Your task to perform on an android device: delete browsing data in the chrome app Image 0: 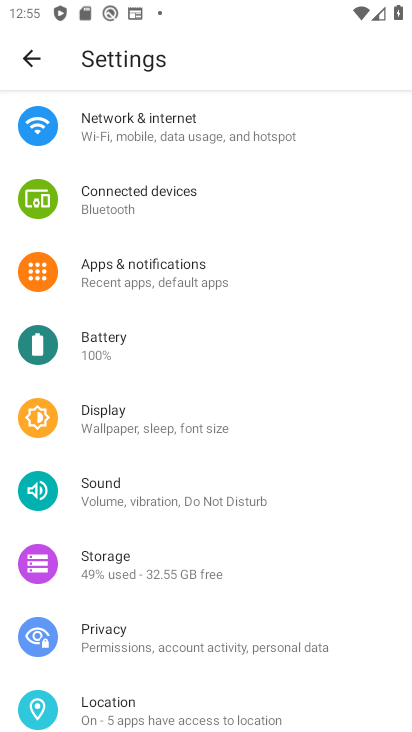
Step 0: press back button
Your task to perform on an android device: delete browsing data in the chrome app Image 1: 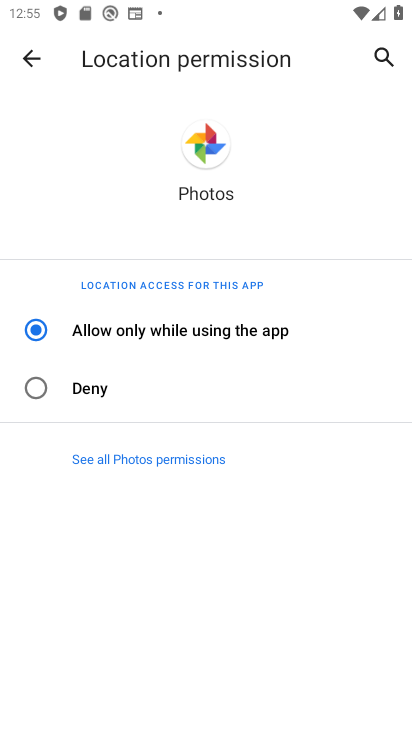
Step 1: press home button
Your task to perform on an android device: delete browsing data in the chrome app Image 2: 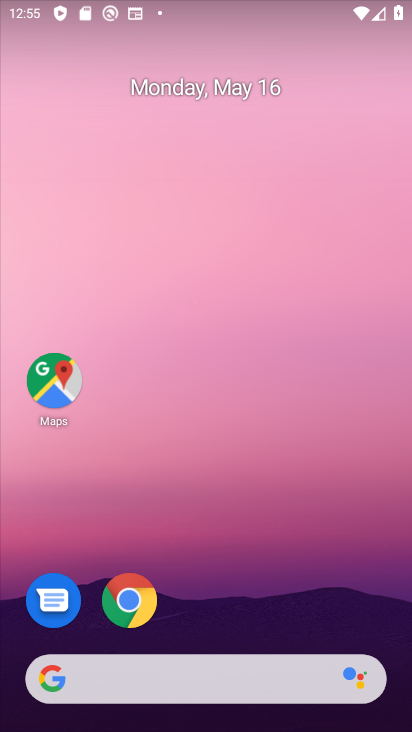
Step 2: drag from (321, 576) to (308, 144)
Your task to perform on an android device: delete browsing data in the chrome app Image 3: 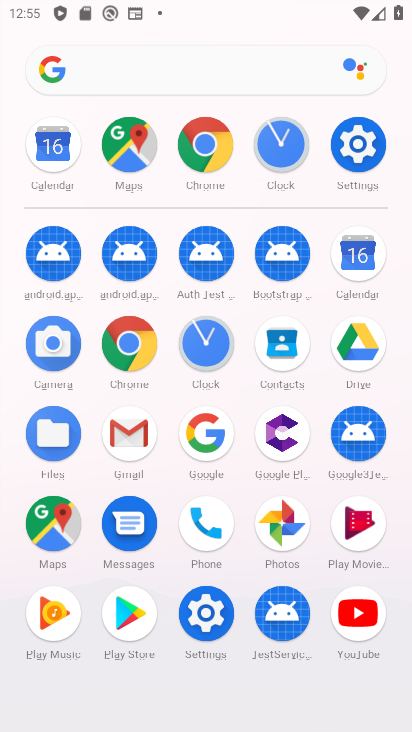
Step 3: click (151, 357)
Your task to perform on an android device: delete browsing data in the chrome app Image 4: 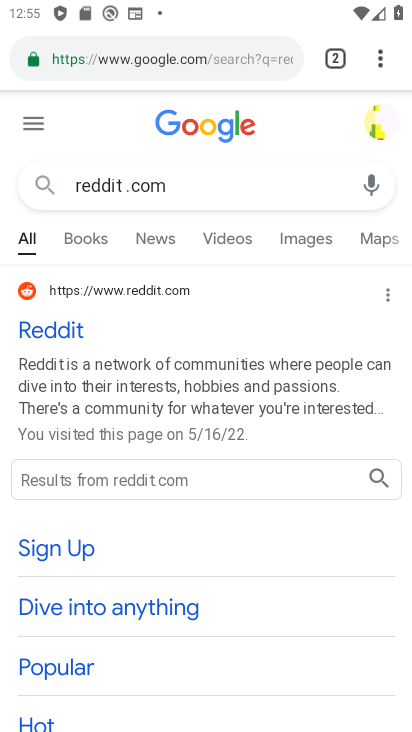
Step 4: click (383, 59)
Your task to perform on an android device: delete browsing data in the chrome app Image 5: 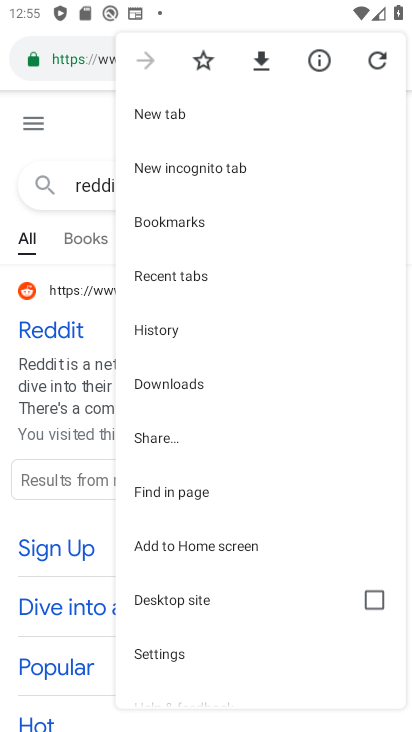
Step 5: drag from (269, 602) to (296, 366)
Your task to perform on an android device: delete browsing data in the chrome app Image 6: 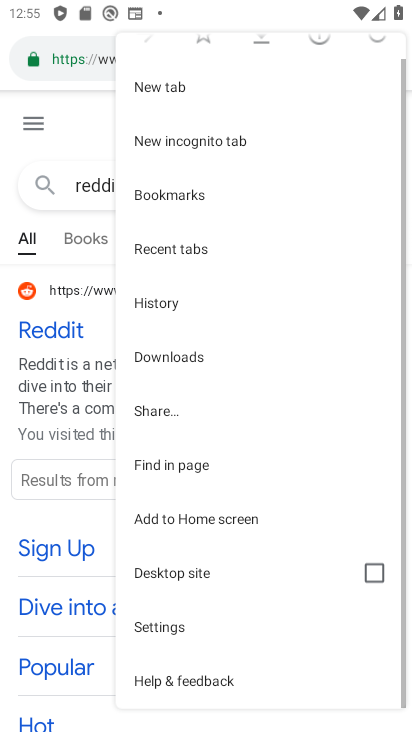
Step 6: click (165, 628)
Your task to perform on an android device: delete browsing data in the chrome app Image 7: 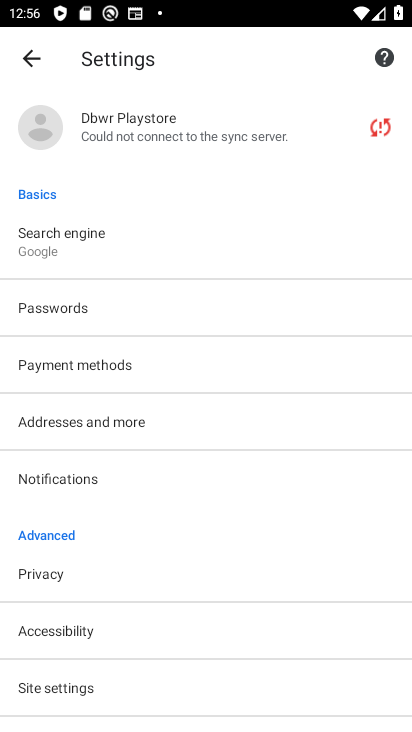
Step 7: drag from (283, 645) to (300, 452)
Your task to perform on an android device: delete browsing data in the chrome app Image 8: 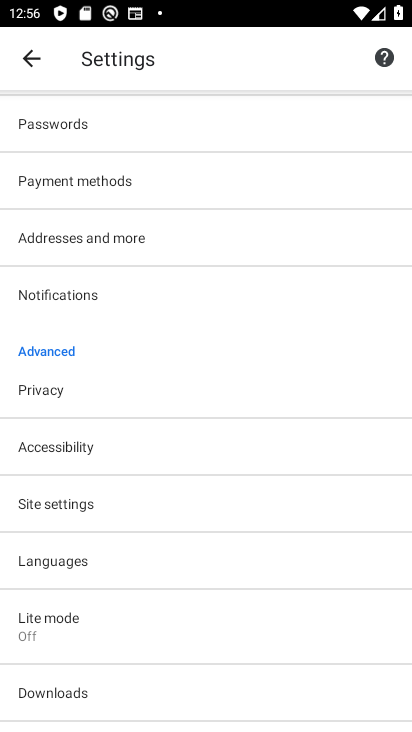
Step 8: drag from (275, 617) to (263, 392)
Your task to perform on an android device: delete browsing data in the chrome app Image 9: 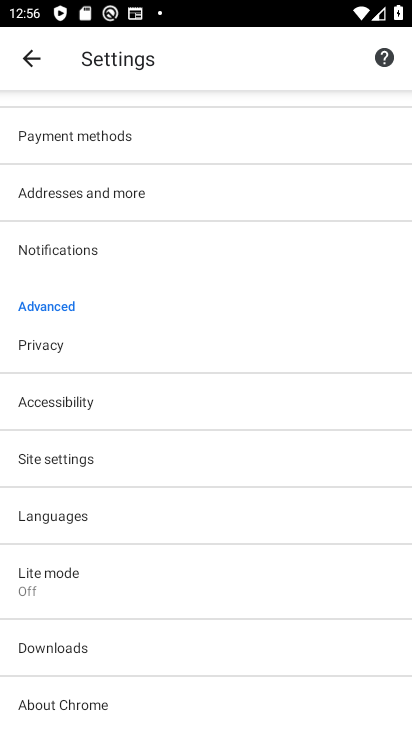
Step 9: drag from (273, 684) to (267, 484)
Your task to perform on an android device: delete browsing data in the chrome app Image 10: 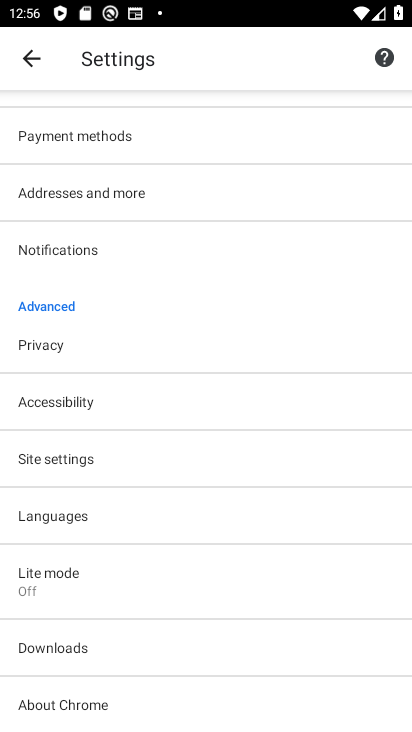
Step 10: drag from (286, 723) to (280, 610)
Your task to perform on an android device: delete browsing data in the chrome app Image 11: 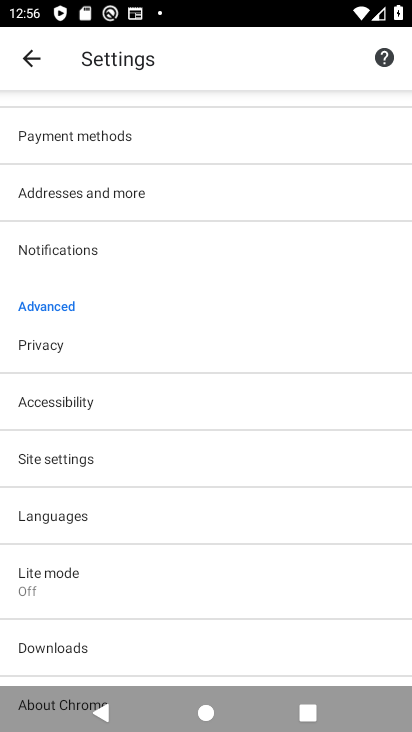
Step 11: drag from (278, 685) to (283, 601)
Your task to perform on an android device: delete browsing data in the chrome app Image 12: 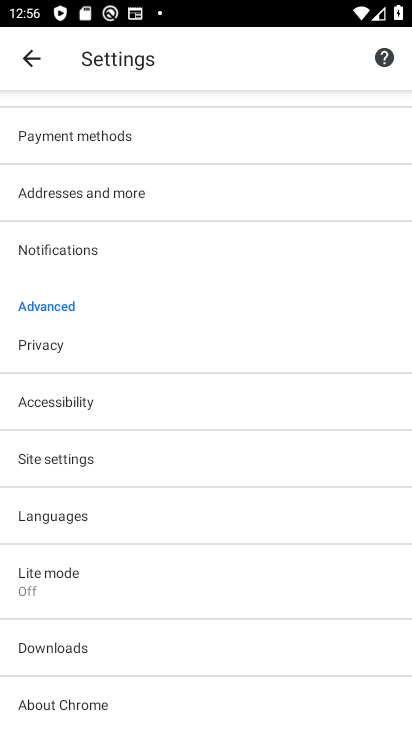
Step 12: click (78, 351)
Your task to perform on an android device: delete browsing data in the chrome app Image 13: 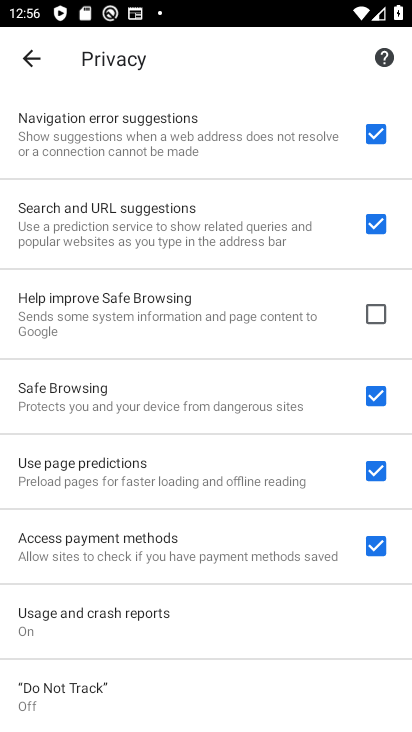
Step 13: drag from (264, 653) to (270, 520)
Your task to perform on an android device: delete browsing data in the chrome app Image 14: 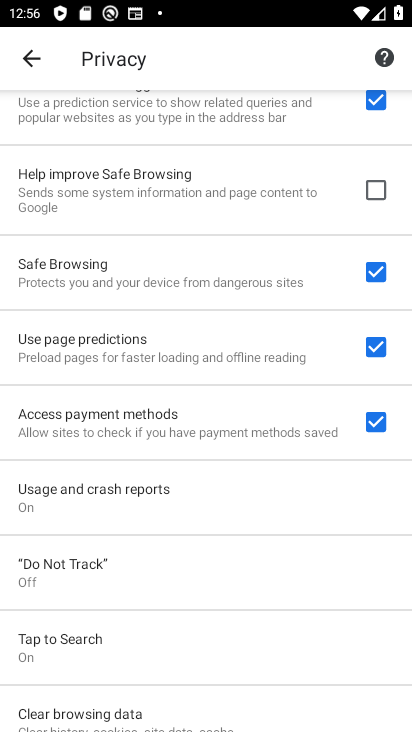
Step 14: drag from (297, 690) to (287, 493)
Your task to perform on an android device: delete browsing data in the chrome app Image 15: 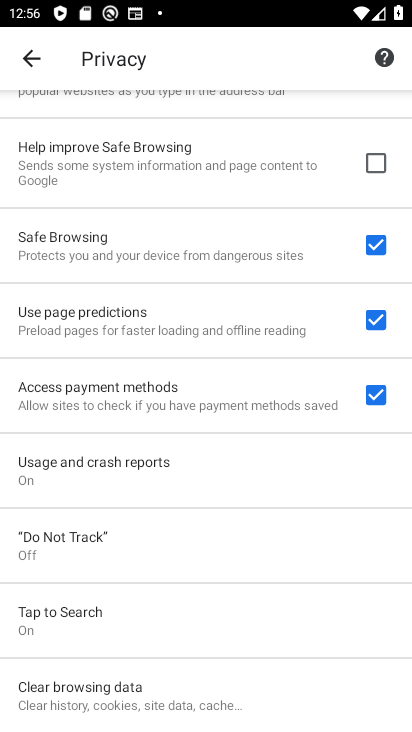
Step 15: click (139, 699)
Your task to perform on an android device: delete browsing data in the chrome app Image 16: 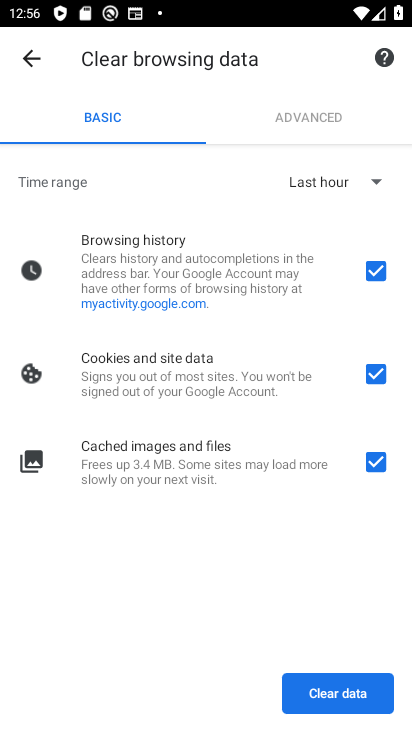
Step 16: click (343, 706)
Your task to perform on an android device: delete browsing data in the chrome app Image 17: 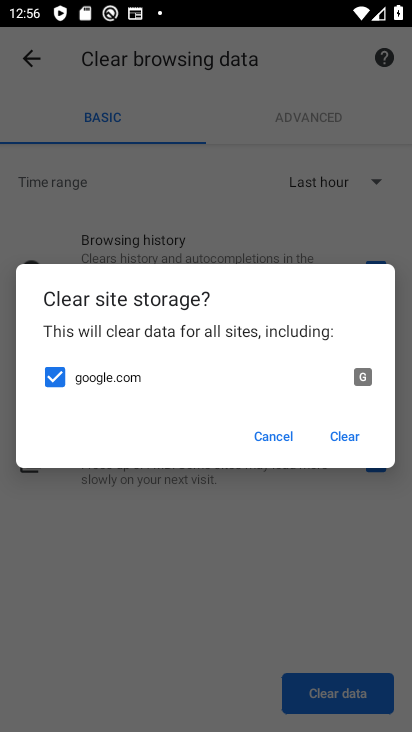
Step 17: click (334, 442)
Your task to perform on an android device: delete browsing data in the chrome app Image 18: 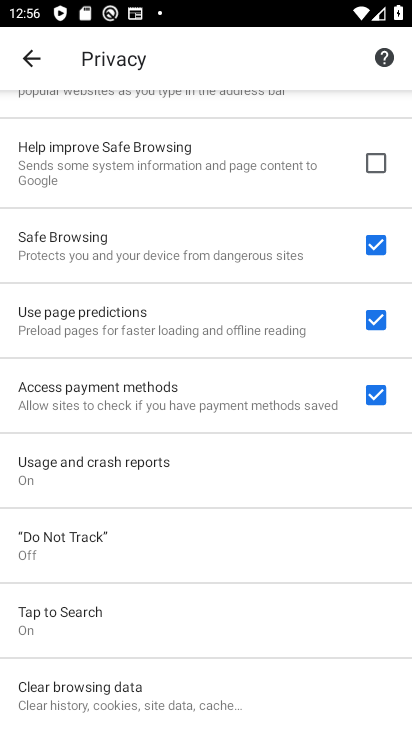
Step 18: task complete